Your task to perform on an android device: Go to display settings Image 0: 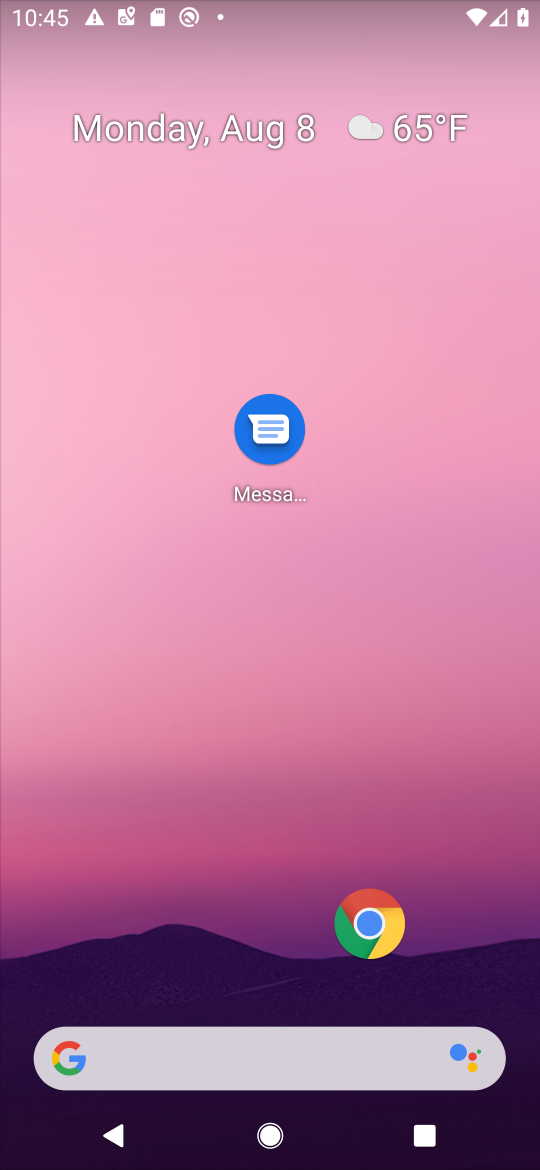
Step 0: drag from (50, 1128) to (300, 434)
Your task to perform on an android device: Go to display settings Image 1: 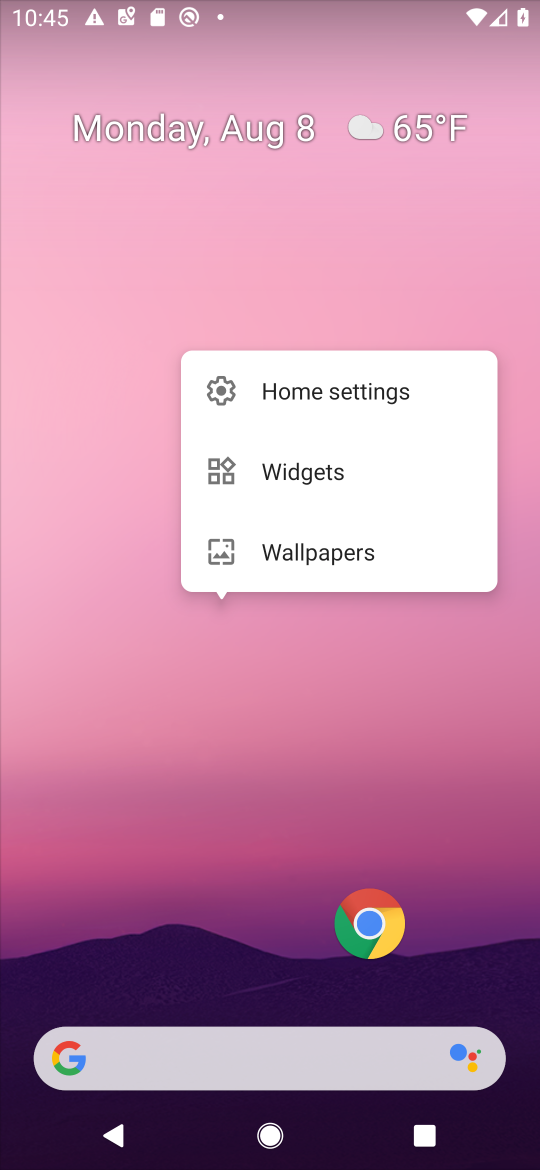
Step 1: drag from (29, 1136) to (155, 393)
Your task to perform on an android device: Go to display settings Image 2: 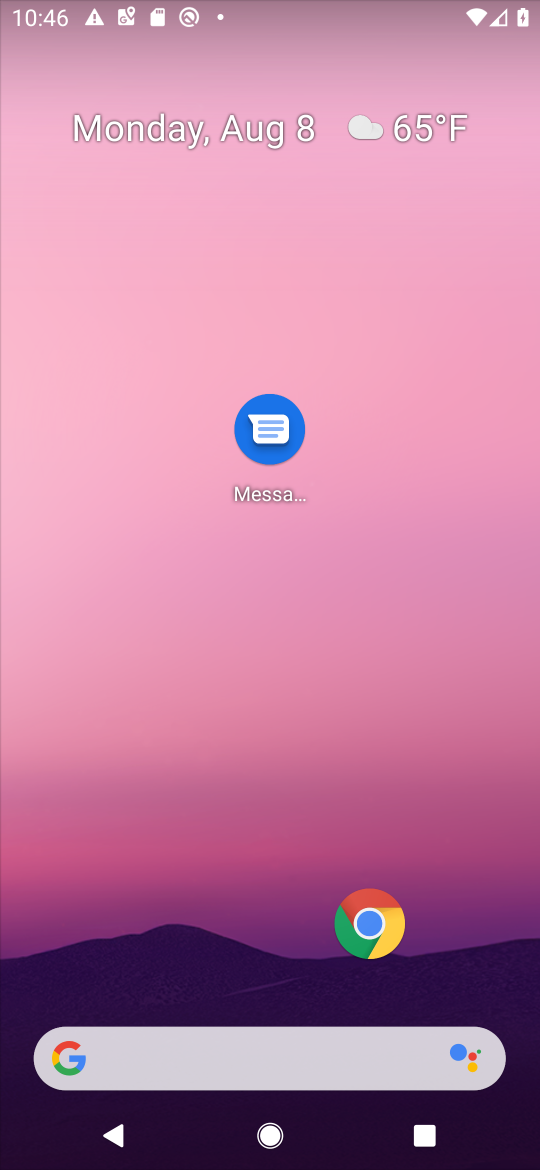
Step 2: drag from (62, 1097) to (353, 438)
Your task to perform on an android device: Go to display settings Image 3: 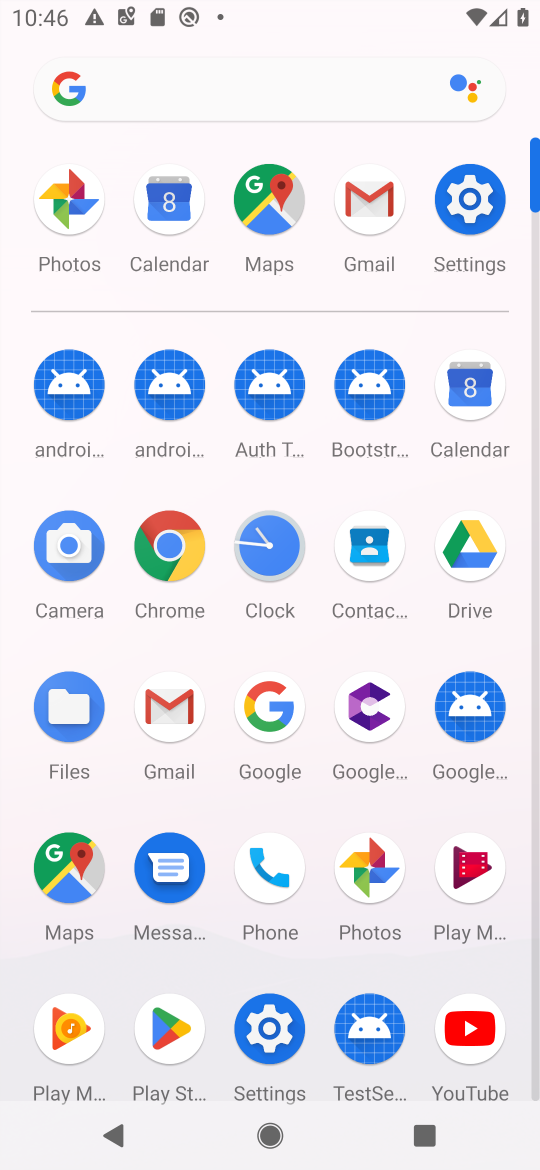
Step 3: click (276, 1032)
Your task to perform on an android device: Go to display settings Image 4: 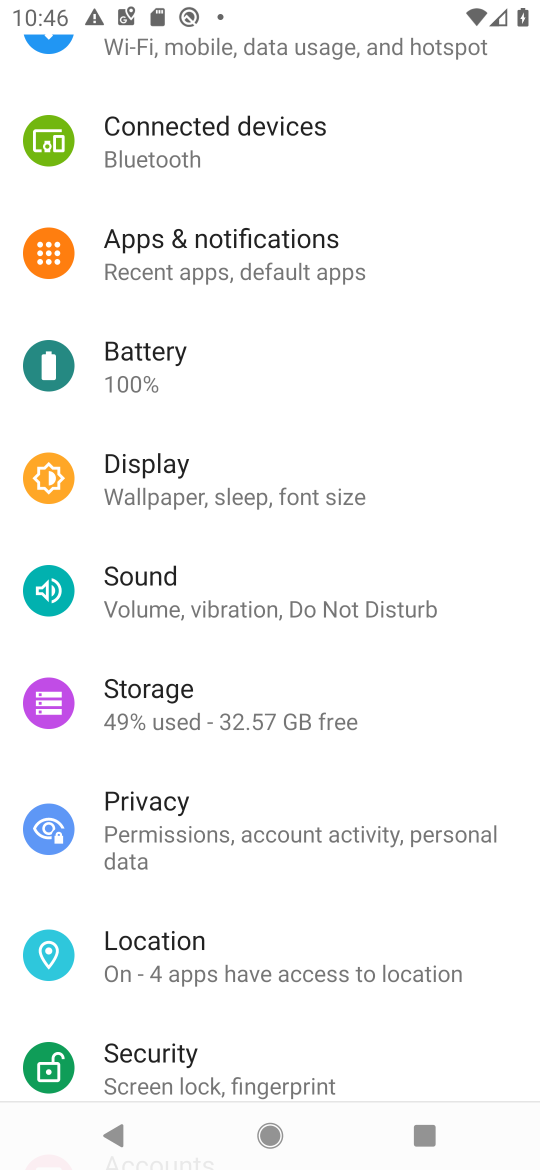
Step 4: click (188, 481)
Your task to perform on an android device: Go to display settings Image 5: 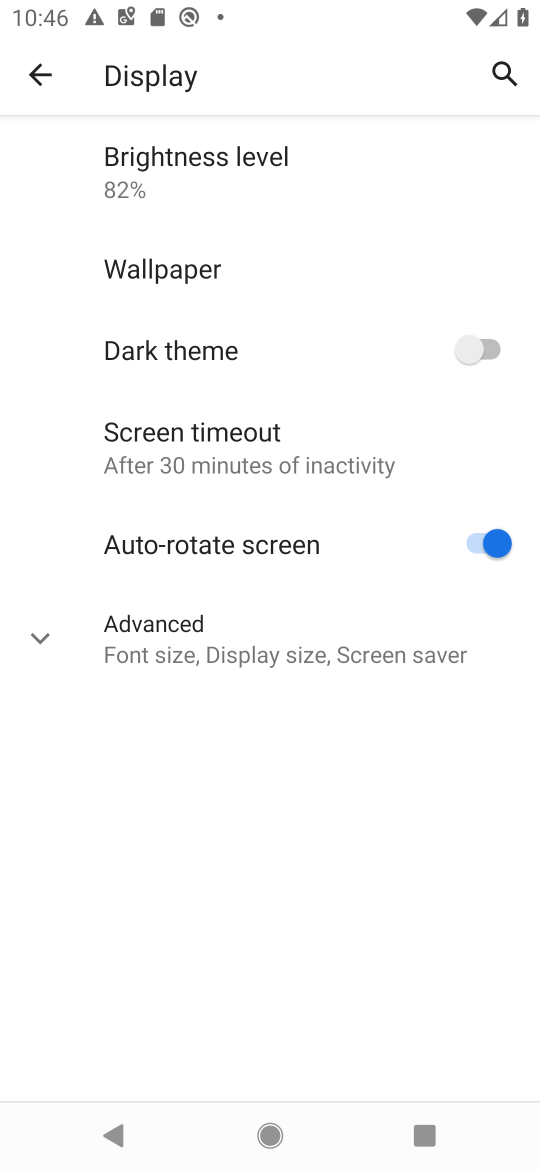
Step 5: task complete